Your task to perform on an android device: Open the map Image 0: 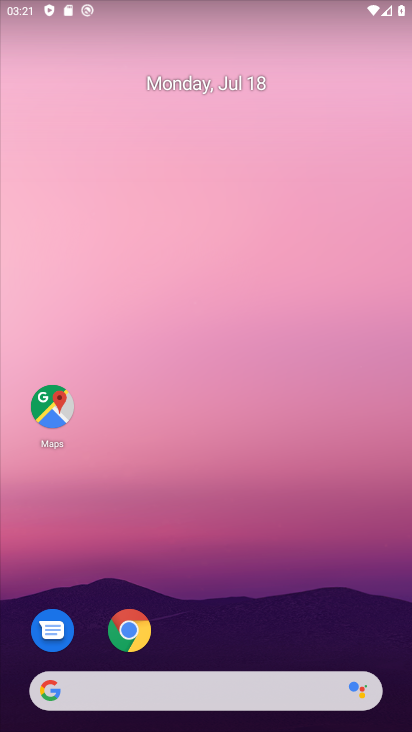
Step 0: drag from (246, 521) to (315, 22)
Your task to perform on an android device: Open the map Image 1: 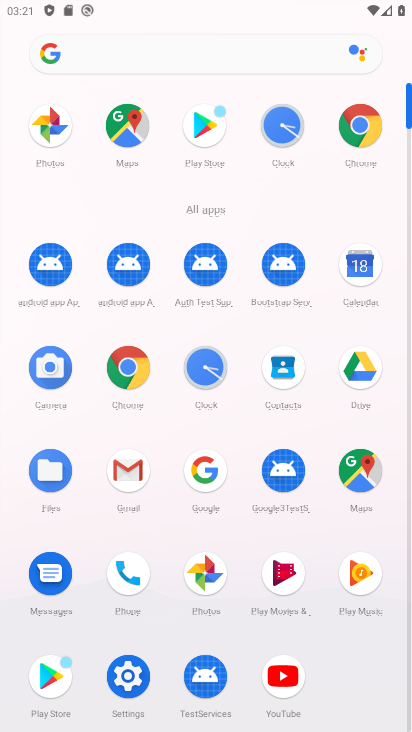
Step 1: click (353, 468)
Your task to perform on an android device: Open the map Image 2: 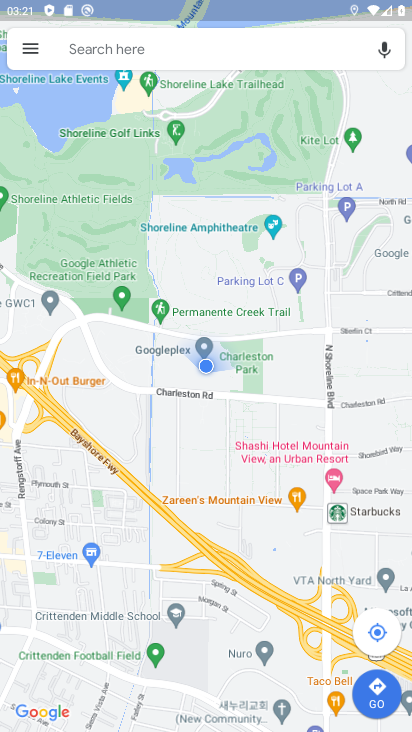
Step 2: task complete